Your task to perform on an android device: check the backup settings in the google photos Image 0: 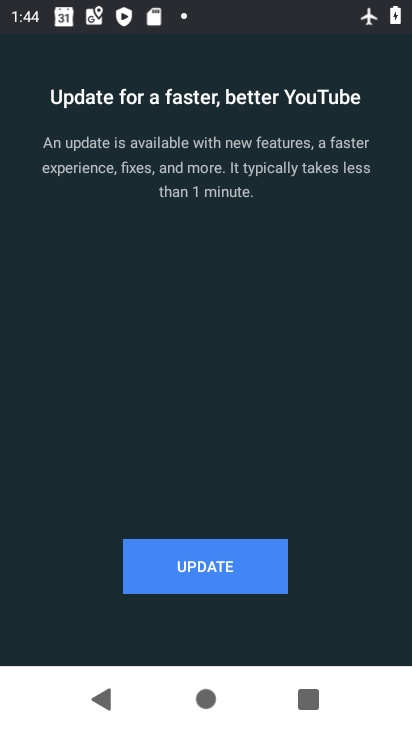
Step 0: press home button
Your task to perform on an android device: check the backup settings in the google photos Image 1: 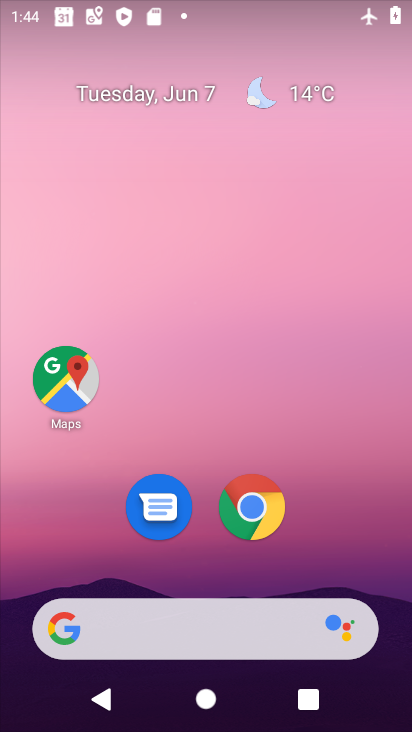
Step 1: drag from (396, 623) to (331, 62)
Your task to perform on an android device: check the backup settings in the google photos Image 2: 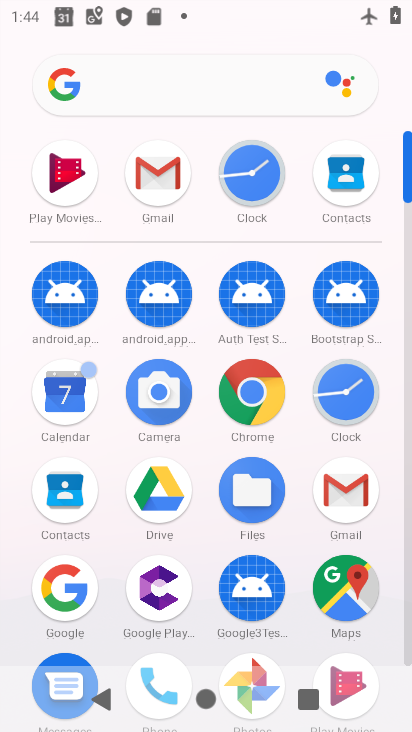
Step 2: click (409, 653)
Your task to perform on an android device: check the backup settings in the google photos Image 3: 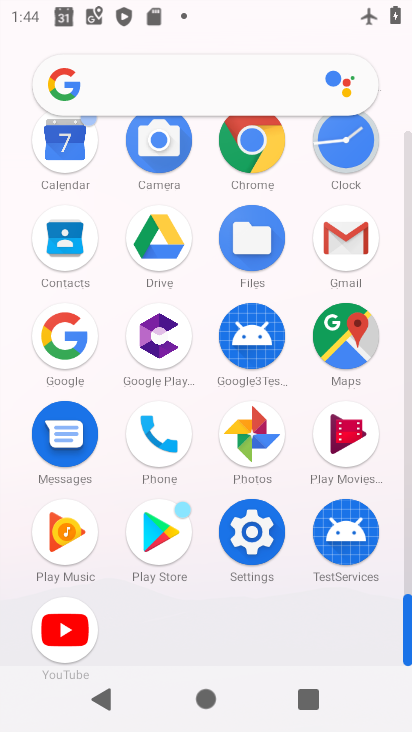
Step 3: click (251, 436)
Your task to perform on an android device: check the backup settings in the google photos Image 4: 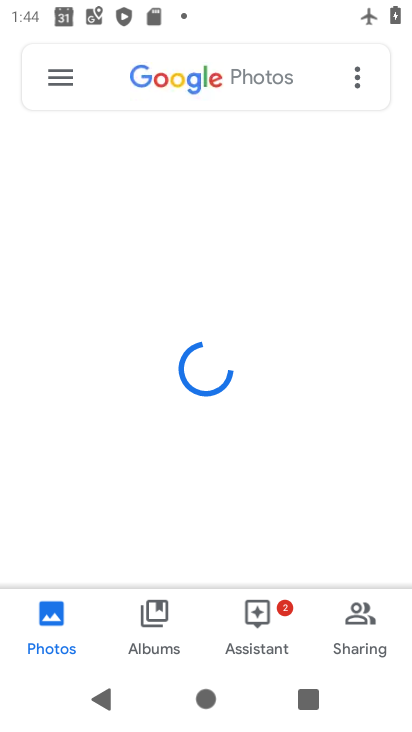
Step 4: click (60, 79)
Your task to perform on an android device: check the backup settings in the google photos Image 5: 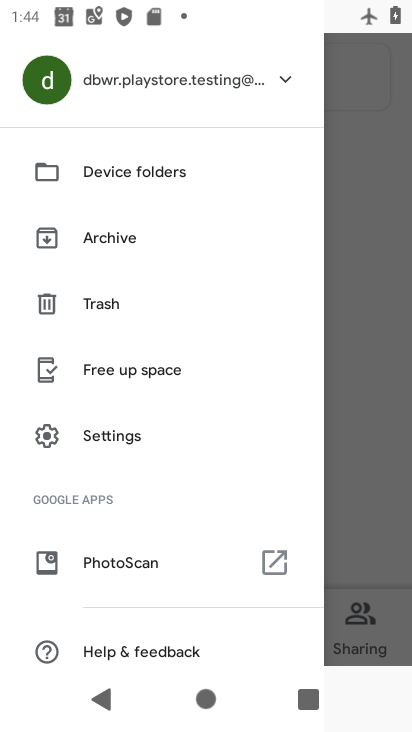
Step 5: click (138, 433)
Your task to perform on an android device: check the backup settings in the google photos Image 6: 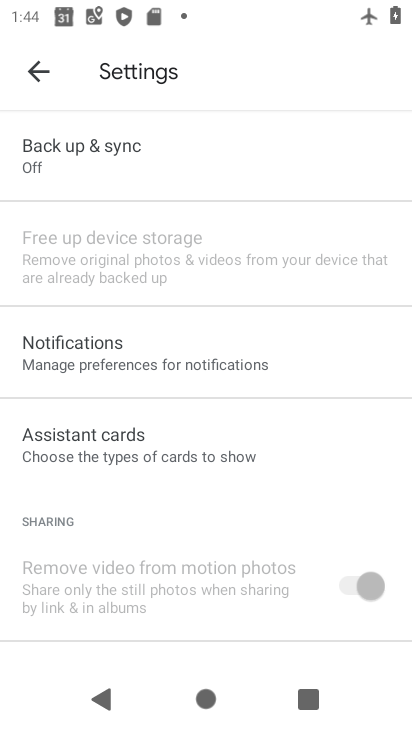
Step 6: drag from (279, 565) to (229, 196)
Your task to perform on an android device: check the backup settings in the google photos Image 7: 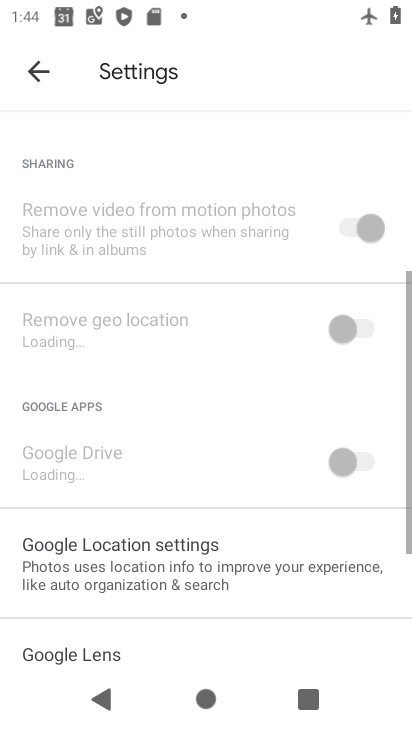
Step 7: drag from (229, 196) to (228, 444)
Your task to perform on an android device: check the backup settings in the google photos Image 8: 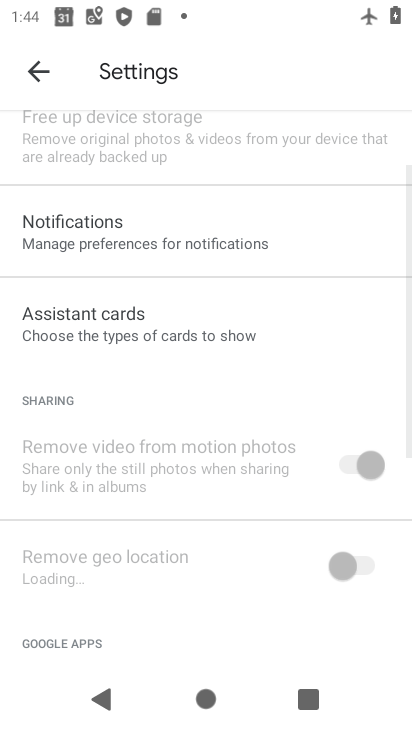
Step 8: drag from (228, 444) to (229, 601)
Your task to perform on an android device: check the backup settings in the google photos Image 9: 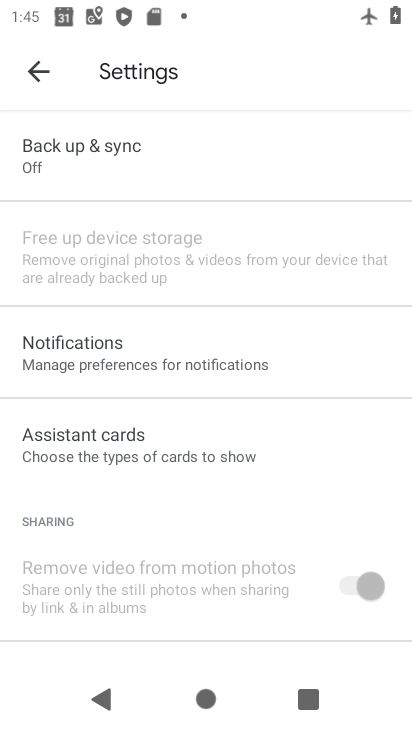
Step 9: click (90, 155)
Your task to perform on an android device: check the backup settings in the google photos Image 10: 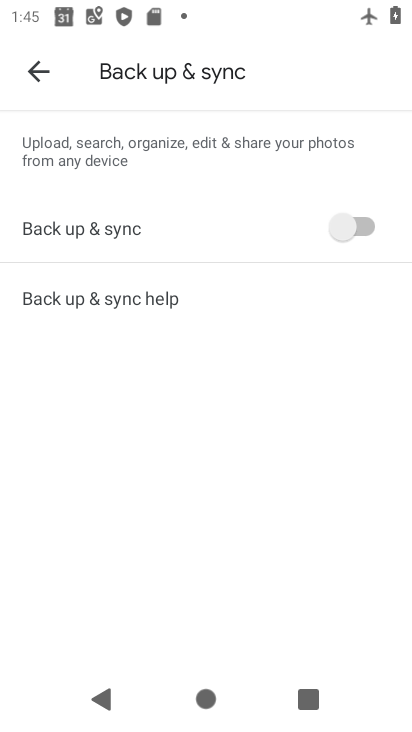
Step 10: task complete